Your task to perform on an android device: Open location settings Image 0: 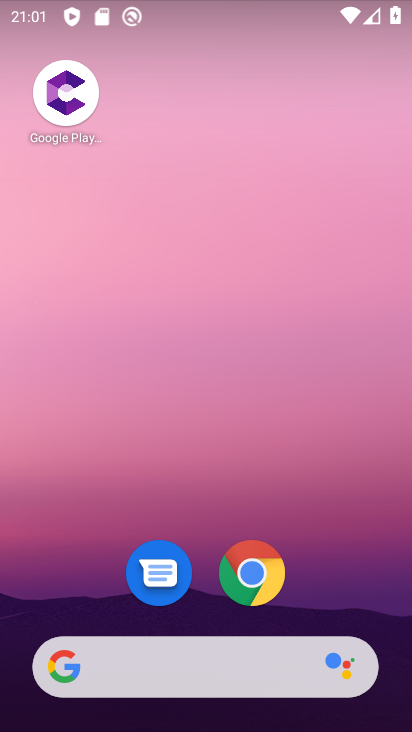
Step 0: drag from (329, 522) to (243, 3)
Your task to perform on an android device: Open location settings Image 1: 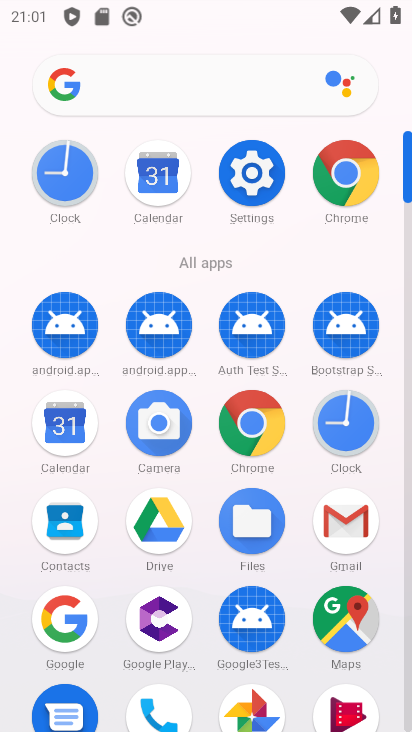
Step 1: click (242, 261)
Your task to perform on an android device: Open location settings Image 2: 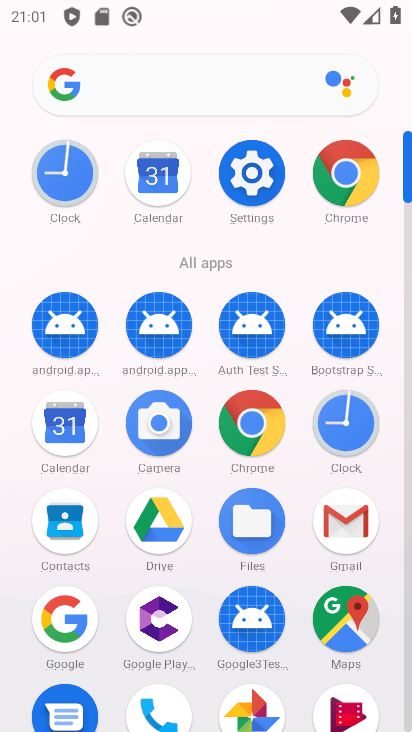
Step 2: click (252, 176)
Your task to perform on an android device: Open location settings Image 3: 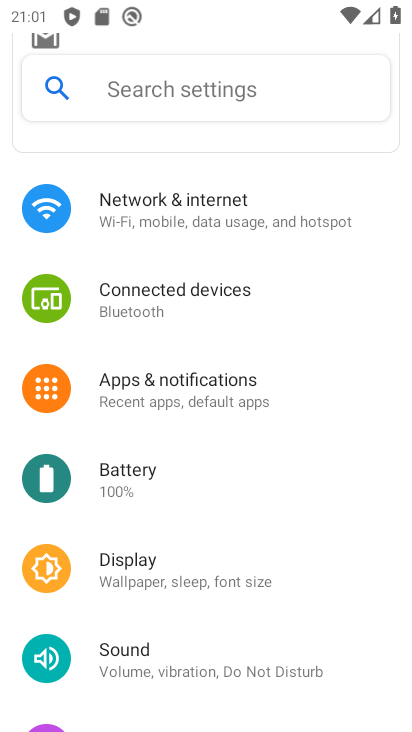
Step 3: drag from (174, 593) to (232, 152)
Your task to perform on an android device: Open location settings Image 4: 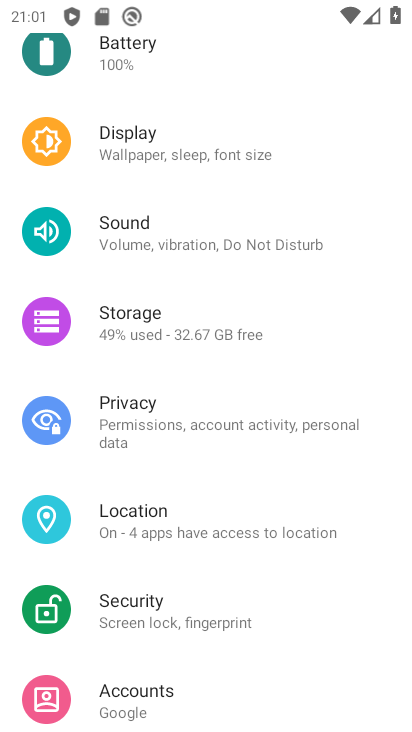
Step 4: click (157, 526)
Your task to perform on an android device: Open location settings Image 5: 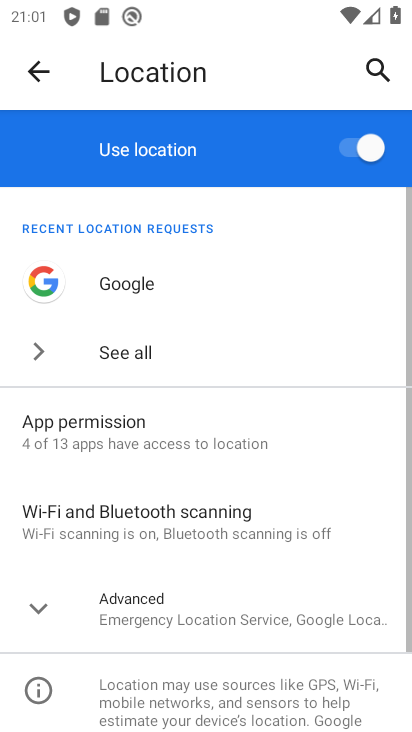
Step 5: task complete